Your task to perform on an android device: Open my contact list Image 0: 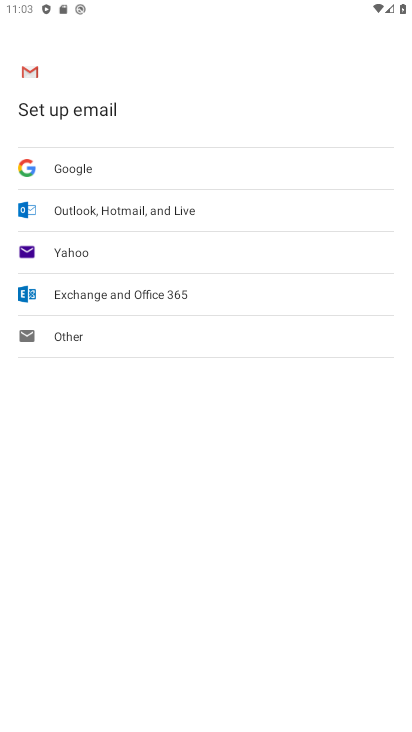
Step 0: press home button
Your task to perform on an android device: Open my contact list Image 1: 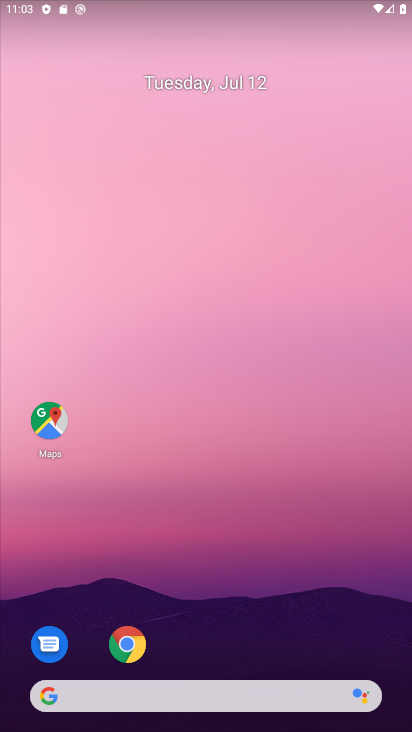
Step 1: drag from (247, 694) to (236, 206)
Your task to perform on an android device: Open my contact list Image 2: 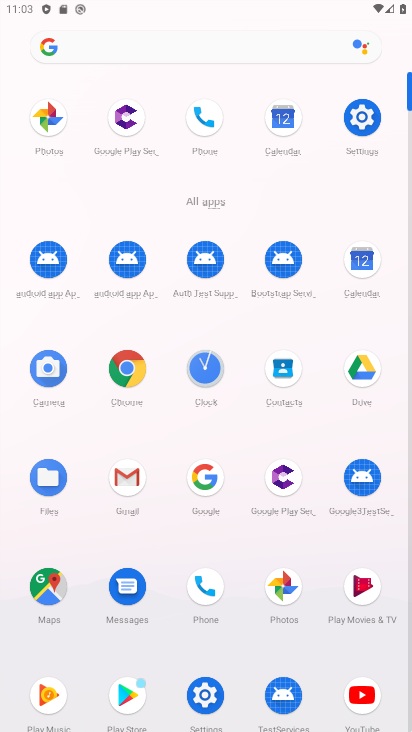
Step 2: click (287, 386)
Your task to perform on an android device: Open my contact list Image 3: 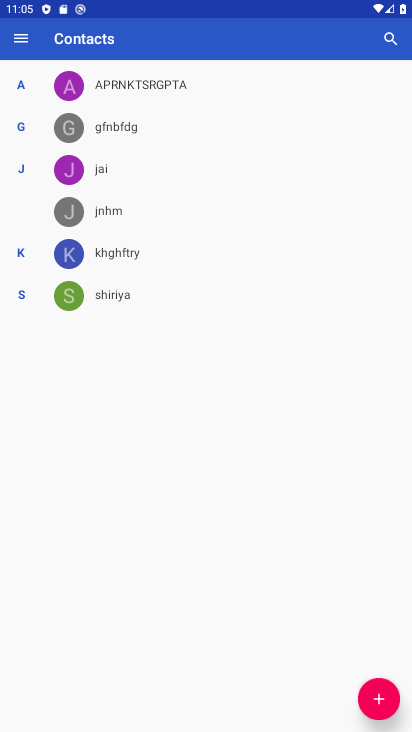
Step 3: task complete